Your task to perform on an android device: Open the map Image 0: 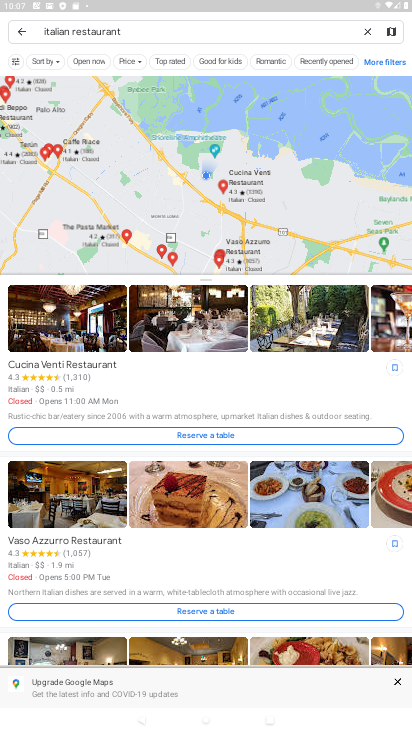
Step 0: press home button
Your task to perform on an android device: Open the map Image 1: 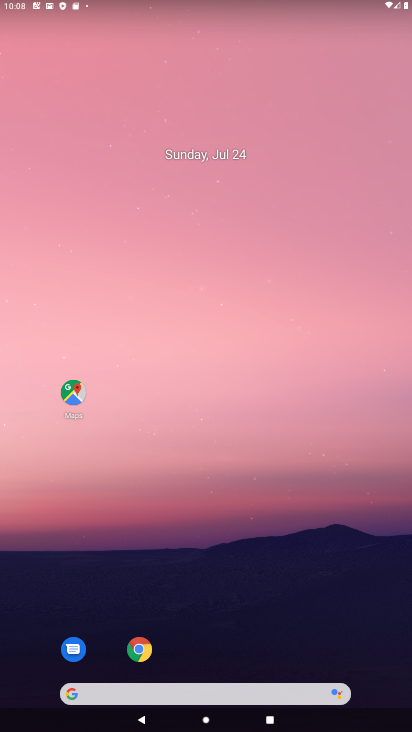
Step 1: drag from (309, 623) to (254, 147)
Your task to perform on an android device: Open the map Image 2: 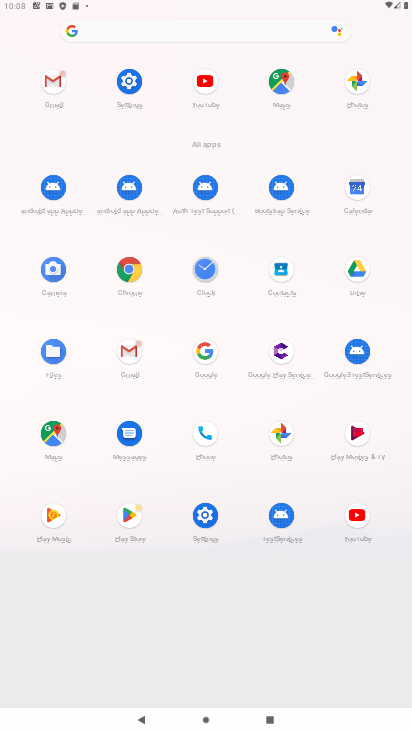
Step 2: click (289, 89)
Your task to perform on an android device: Open the map Image 3: 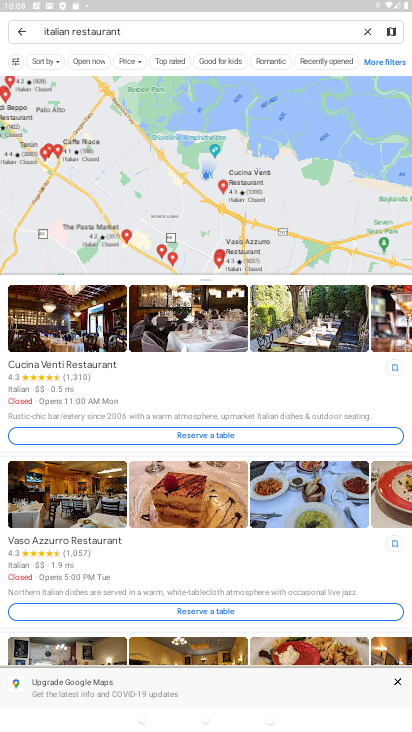
Step 3: task complete